Your task to perform on an android device: turn on javascript in the chrome app Image 0: 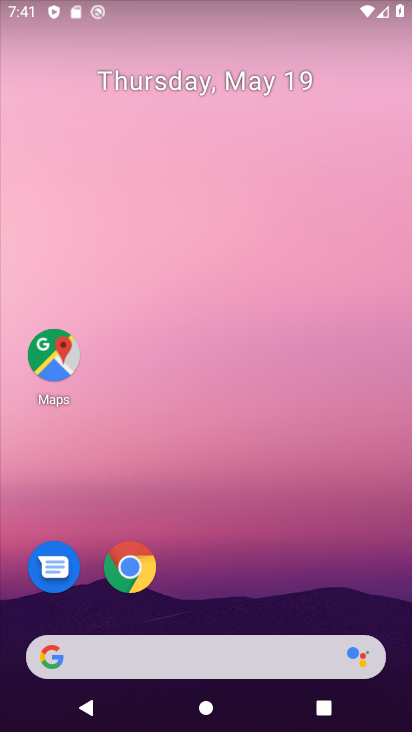
Step 0: click (134, 563)
Your task to perform on an android device: turn on javascript in the chrome app Image 1: 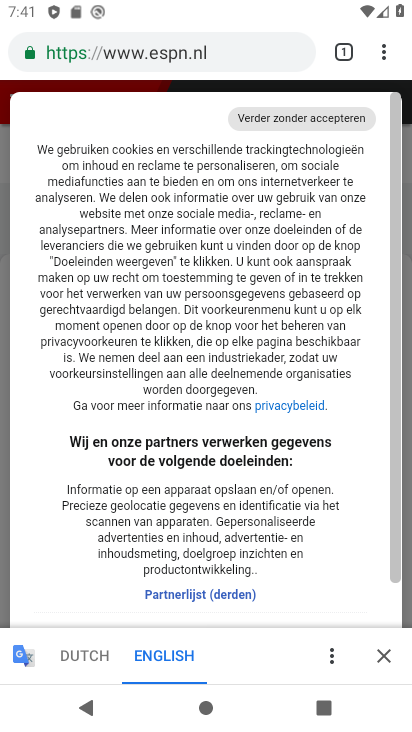
Step 1: click (393, 53)
Your task to perform on an android device: turn on javascript in the chrome app Image 2: 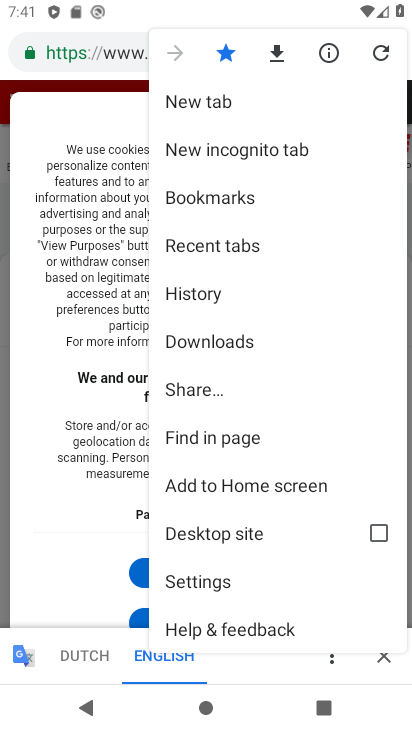
Step 2: click (169, 587)
Your task to perform on an android device: turn on javascript in the chrome app Image 3: 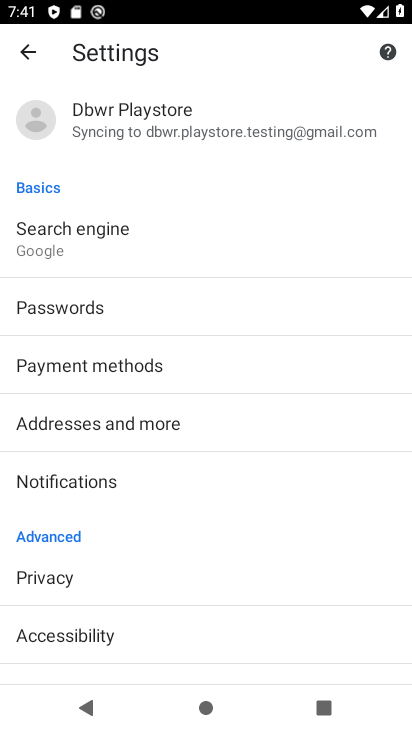
Step 3: drag from (169, 587) to (157, 73)
Your task to perform on an android device: turn on javascript in the chrome app Image 4: 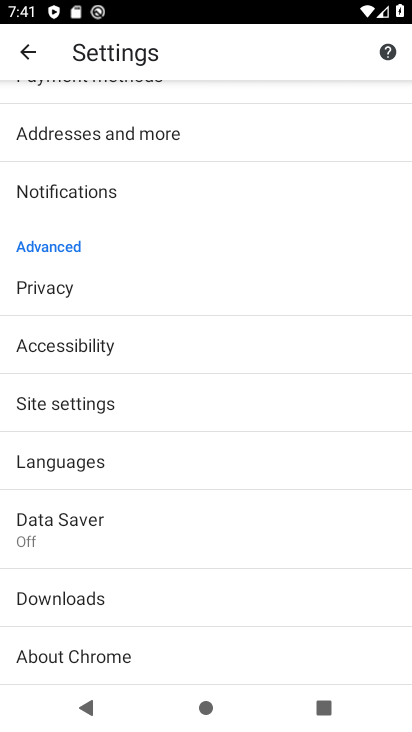
Step 4: click (68, 426)
Your task to perform on an android device: turn on javascript in the chrome app Image 5: 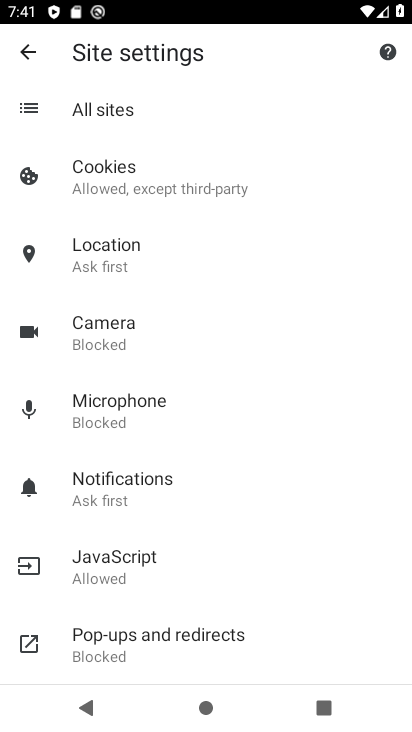
Step 5: click (116, 578)
Your task to perform on an android device: turn on javascript in the chrome app Image 6: 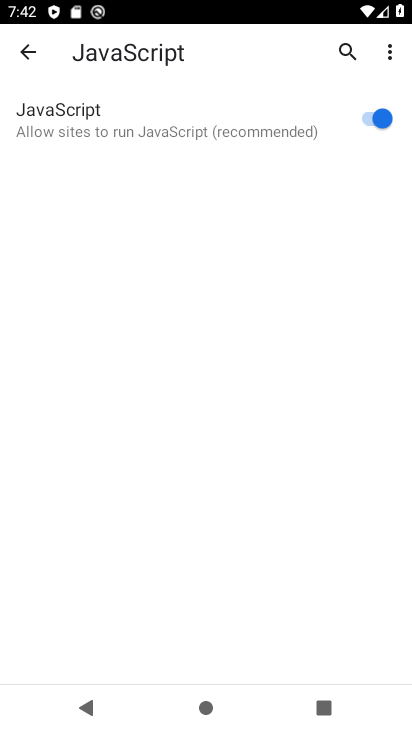
Step 6: task complete